Your task to perform on an android device: Open notification settings Image 0: 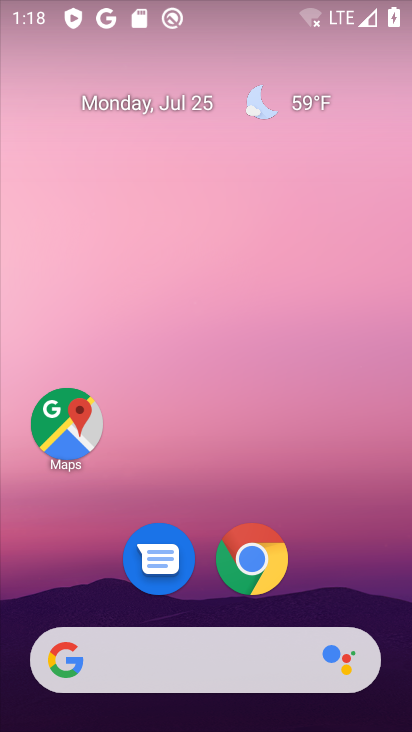
Step 0: drag from (56, 570) to (228, 15)
Your task to perform on an android device: Open notification settings Image 1: 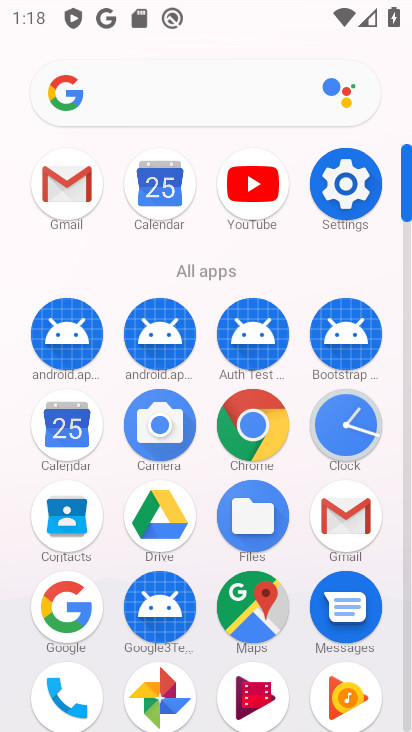
Step 1: click (335, 192)
Your task to perform on an android device: Open notification settings Image 2: 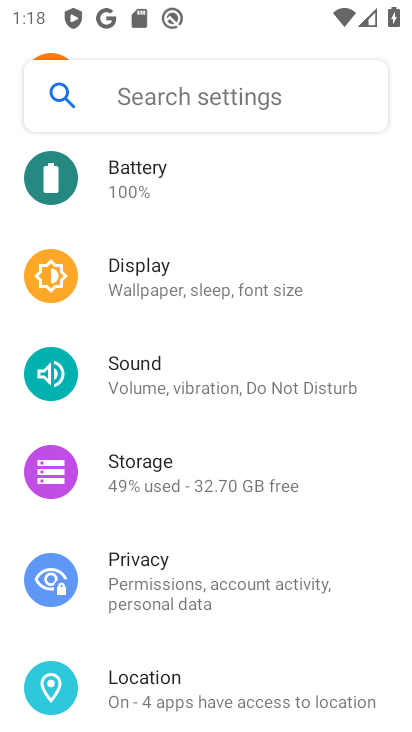
Step 2: drag from (193, 232) to (225, 726)
Your task to perform on an android device: Open notification settings Image 3: 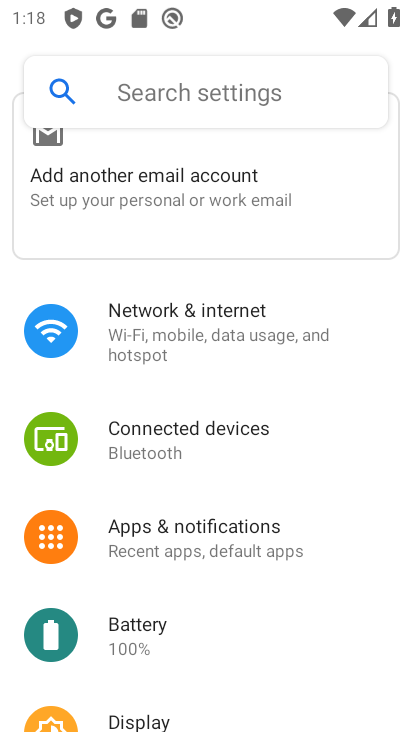
Step 3: click (233, 539)
Your task to perform on an android device: Open notification settings Image 4: 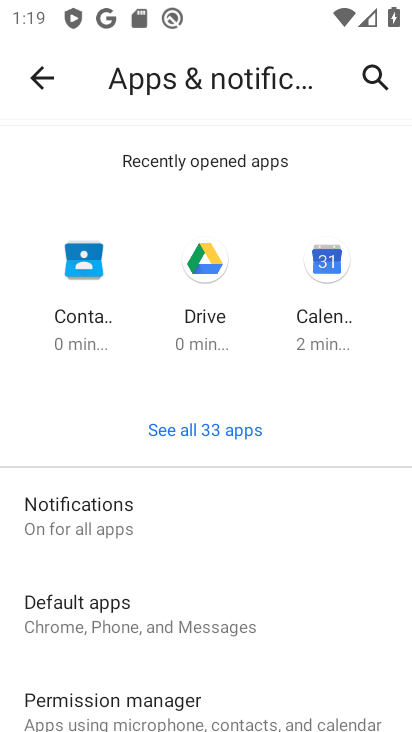
Step 4: click (76, 515)
Your task to perform on an android device: Open notification settings Image 5: 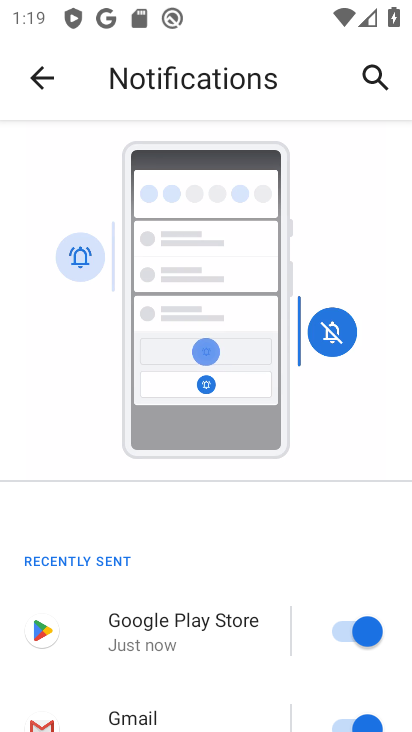
Step 5: task complete